Your task to perform on an android device: see sites visited before in the chrome app Image 0: 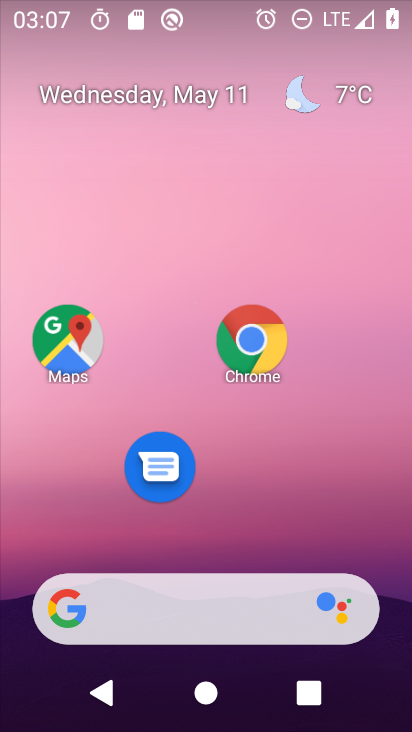
Step 0: drag from (171, 603) to (288, 208)
Your task to perform on an android device: see sites visited before in the chrome app Image 1: 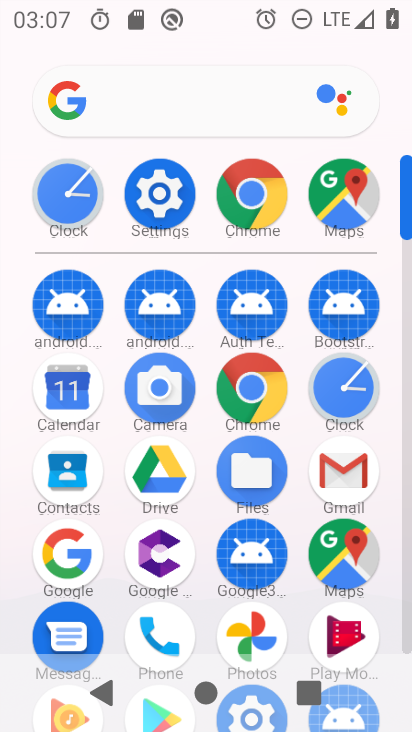
Step 1: click (254, 212)
Your task to perform on an android device: see sites visited before in the chrome app Image 2: 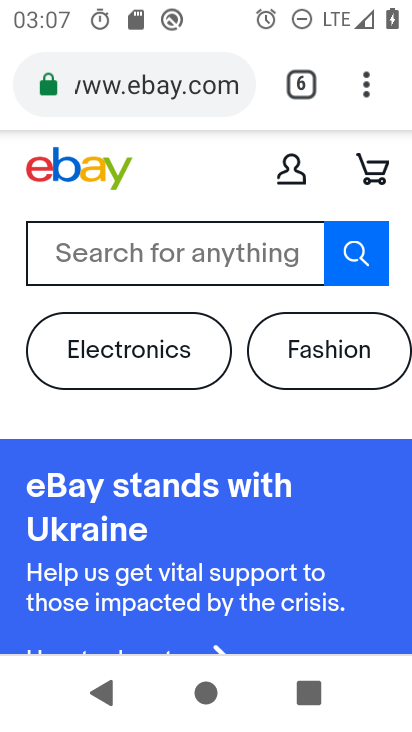
Step 2: task complete